Your task to perform on an android device: turn on improve location accuracy Image 0: 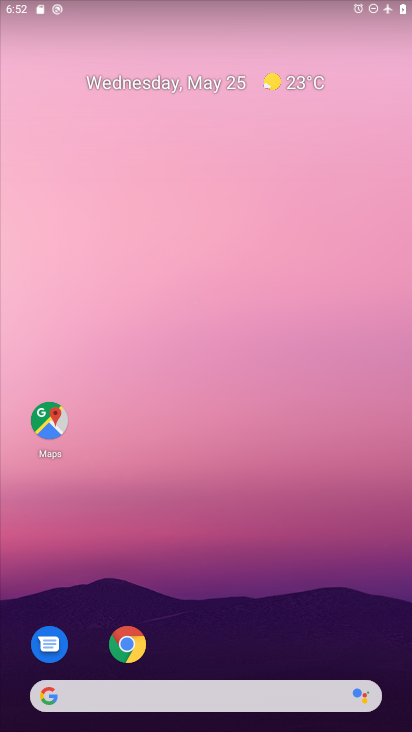
Step 0: drag from (379, 615) to (298, 62)
Your task to perform on an android device: turn on improve location accuracy Image 1: 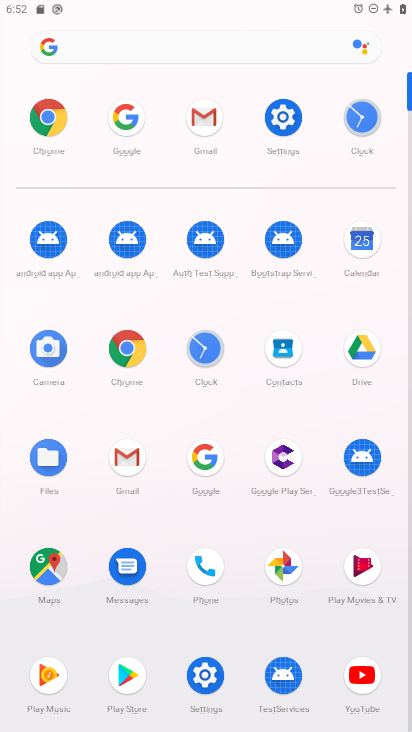
Step 1: click (282, 119)
Your task to perform on an android device: turn on improve location accuracy Image 2: 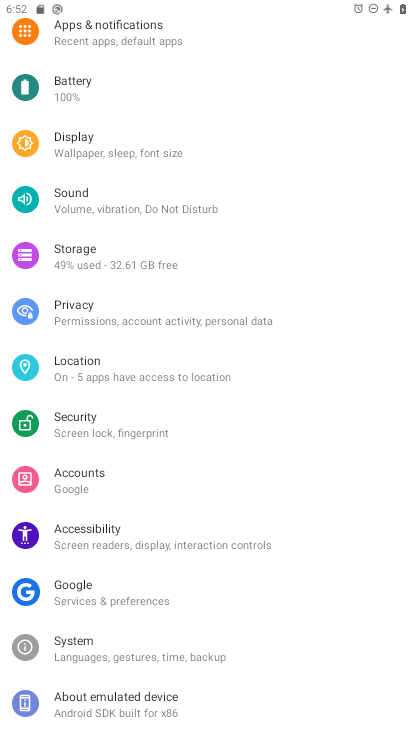
Step 2: click (68, 358)
Your task to perform on an android device: turn on improve location accuracy Image 3: 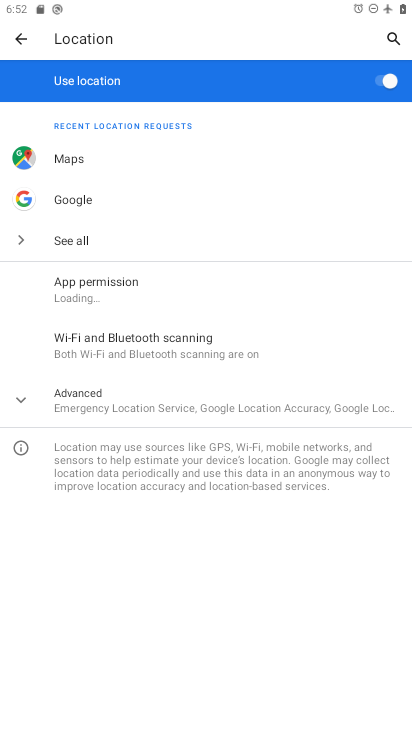
Step 3: click (83, 389)
Your task to perform on an android device: turn on improve location accuracy Image 4: 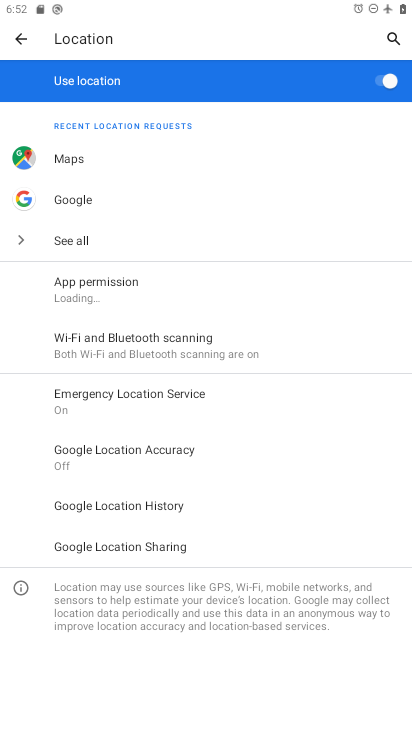
Step 4: click (146, 464)
Your task to perform on an android device: turn on improve location accuracy Image 5: 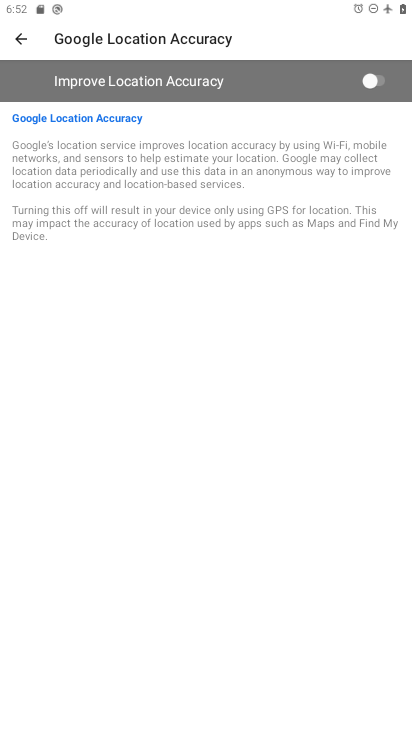
Step 5: click (362, 97)
Your task to perform on an android device: turn on improve location accuracy Image 6: 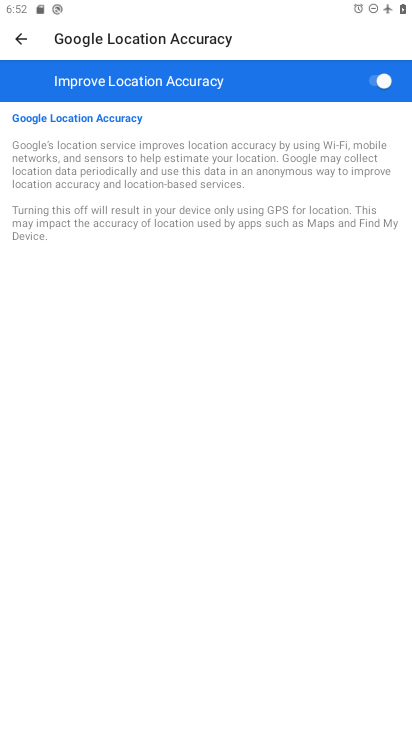
Step 6: task complete